Your task to perform on an android device: Open Chrome and go to the settings page Image 0: 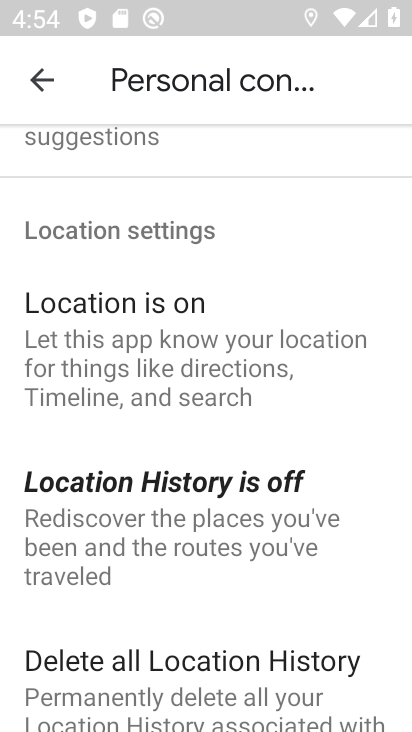
Step 0: press home button
Your task to perform on an android device: Open Chrome and go to the settings page Image 1: 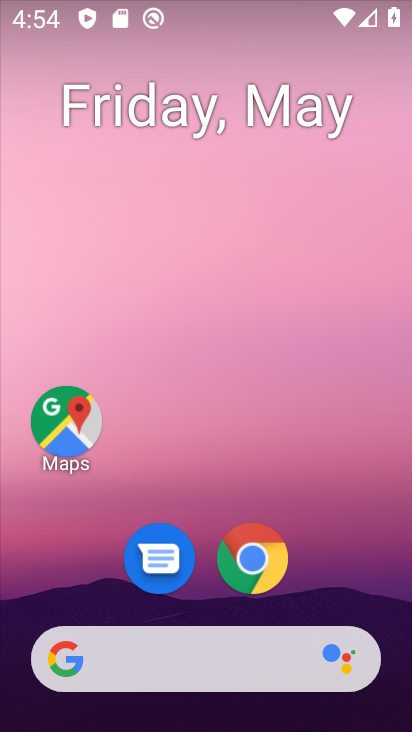
Step 1: click (270, 571)
Your task to perform on an android device: Open Chrome and go to the settings page Image 2: 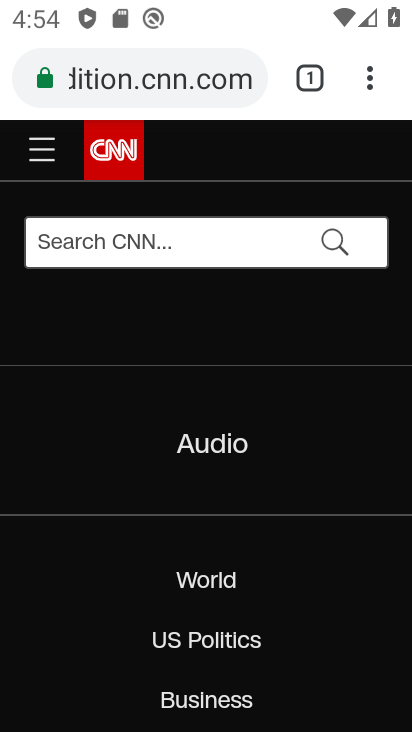
Step 2: click (375, 82)
Your task to perform on an android device: Open Chrome and go to the settings page Image 3: 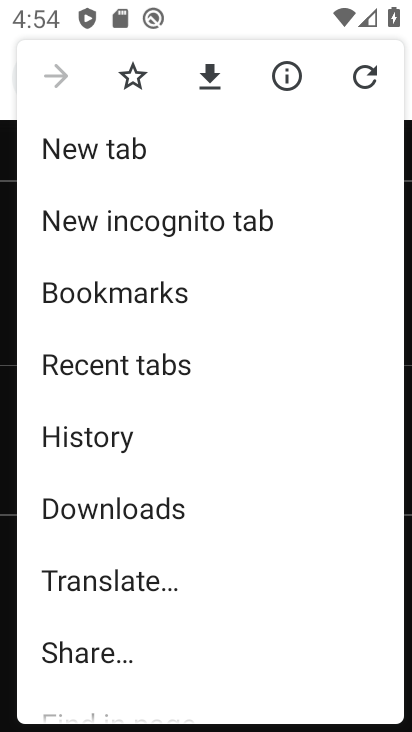
Step 3: drag from (138, 669) to (78, 207)
Your task to perform on an android device: Open Chrome and go to the settings page Image 4: 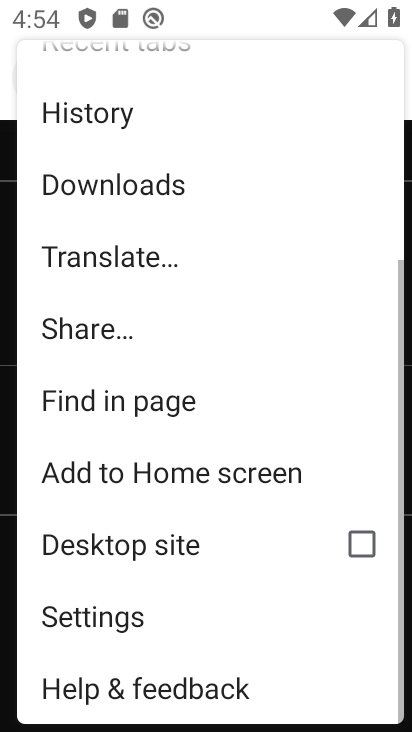
Step 4: click (134, 624)
Your task to perform on an android device: Open Chrome and go to the settings page Image 5: 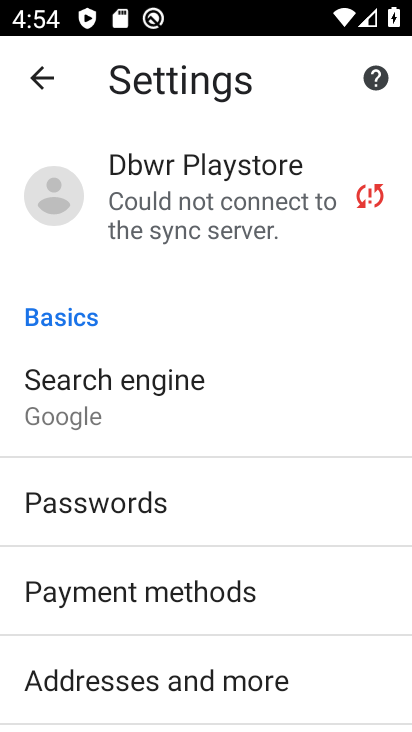
Step 5: task complete